Your task to perform on an android device: Open Google Maps Image 0: 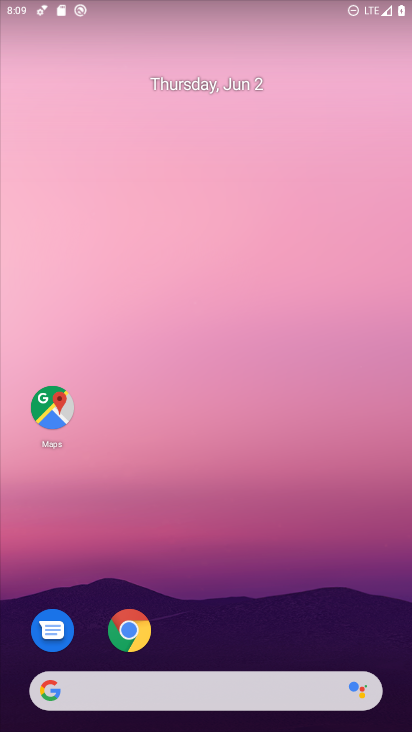
Step 0: click (53, 415)
Your task to perform on an android device: Open Google Maps Image 1: 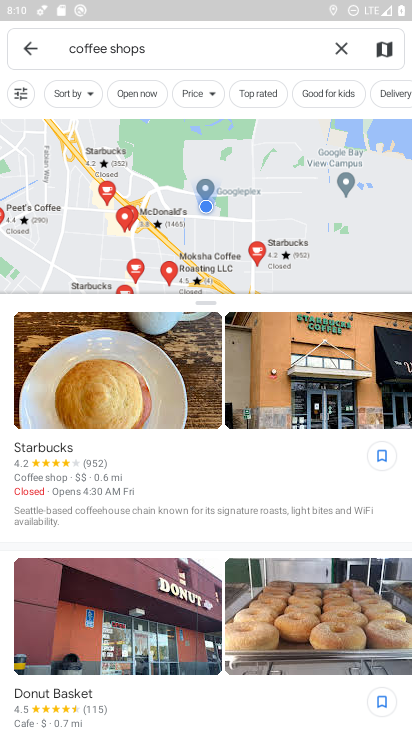
Step 1: task complete